Your task to perform on an android device: open app "Contacts" Image 0: 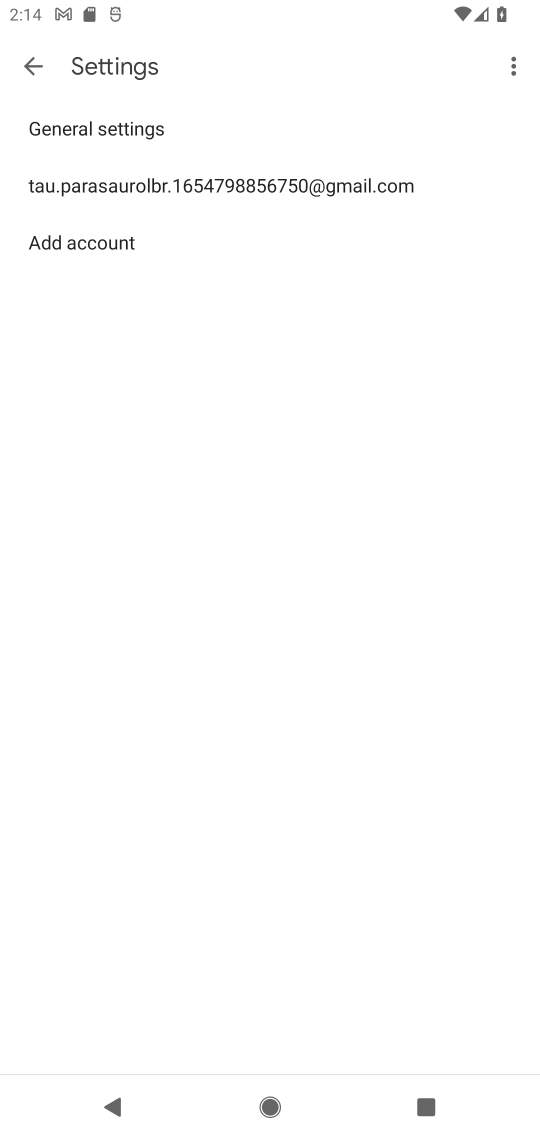
Step 0: press home button
Your task to perform on an android device: open app "Contacts" Image 1: 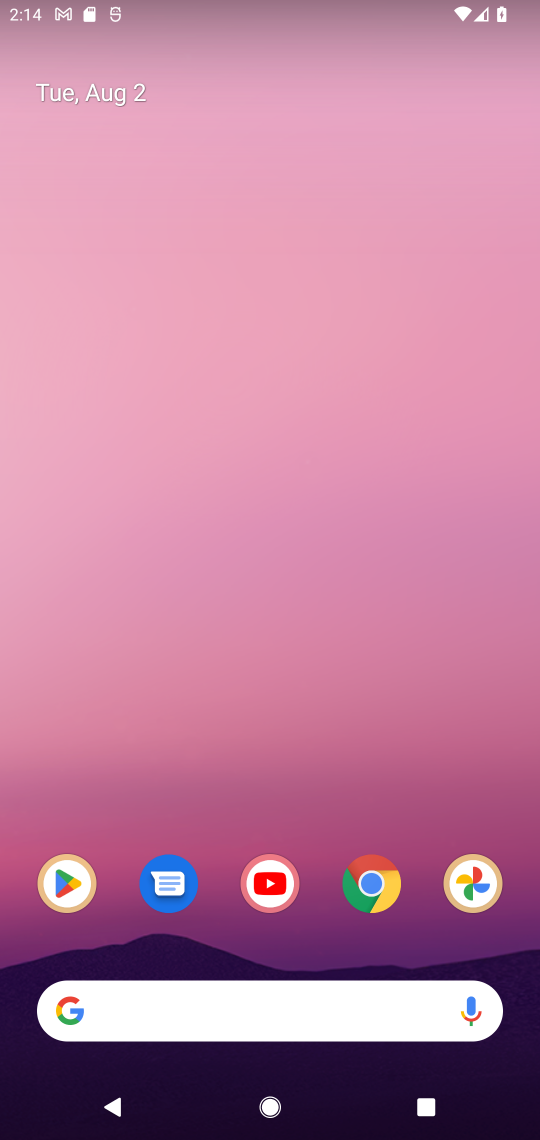
Step 1: drag from (324, 613) to (376, 16)
Your task to perform on an android device: open app "Contacts" Image 2: 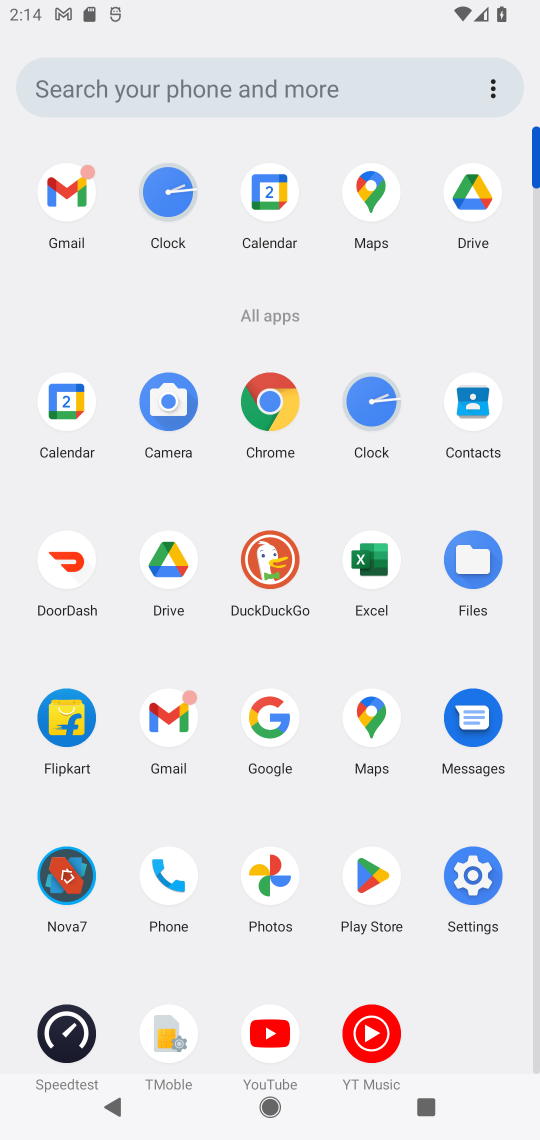
Step 2: click (478, 402)
Your task to perform on an android device: open app "Contacts" Image 3: 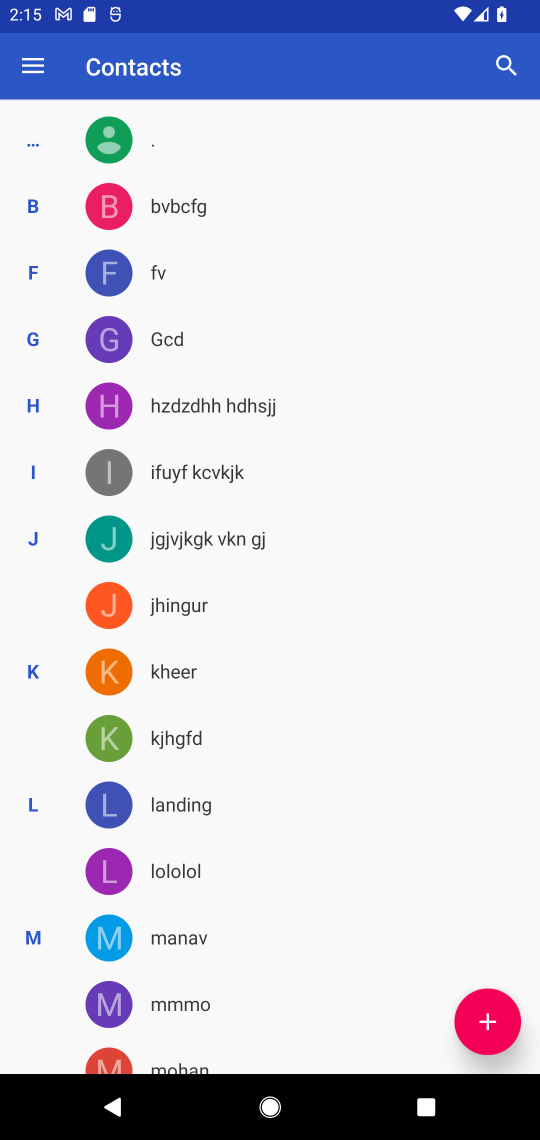
Step 3: task complete